Your task to perform on an android device: What's the weather? Image 0: 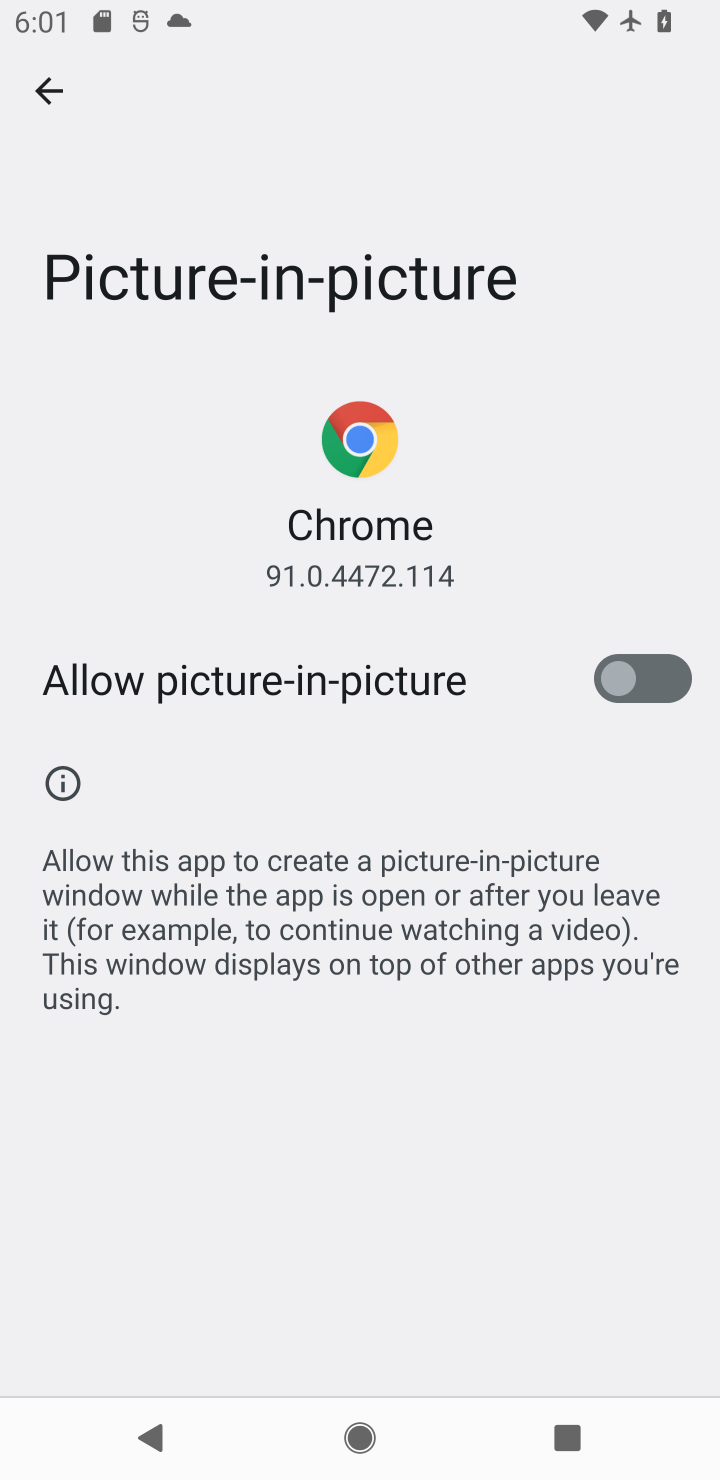
Step 0: press home button
Your task to perform on an android device: What's the weather? Image 1: 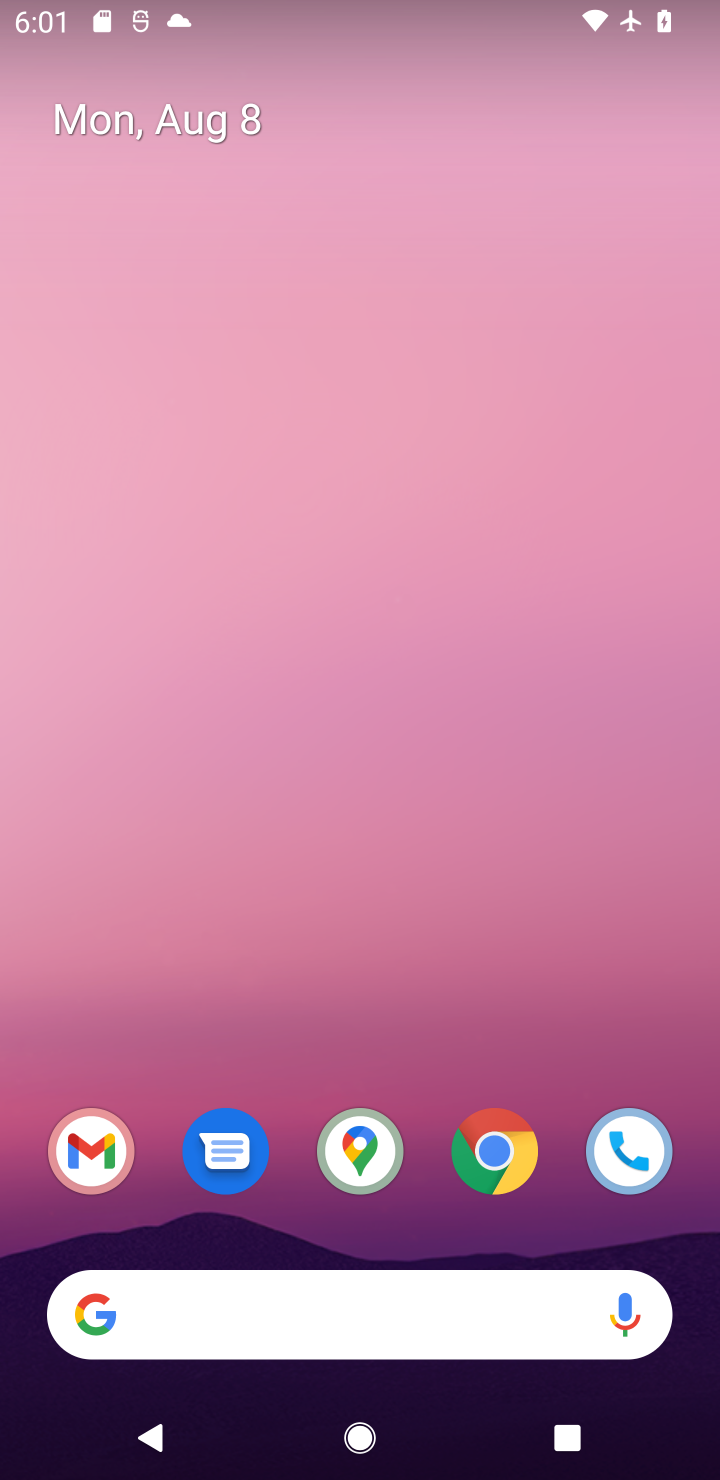
Step 1: drag from (407, 1029) to (440, 266)
Your task to perform on an android device: What's the weather? Image 2: 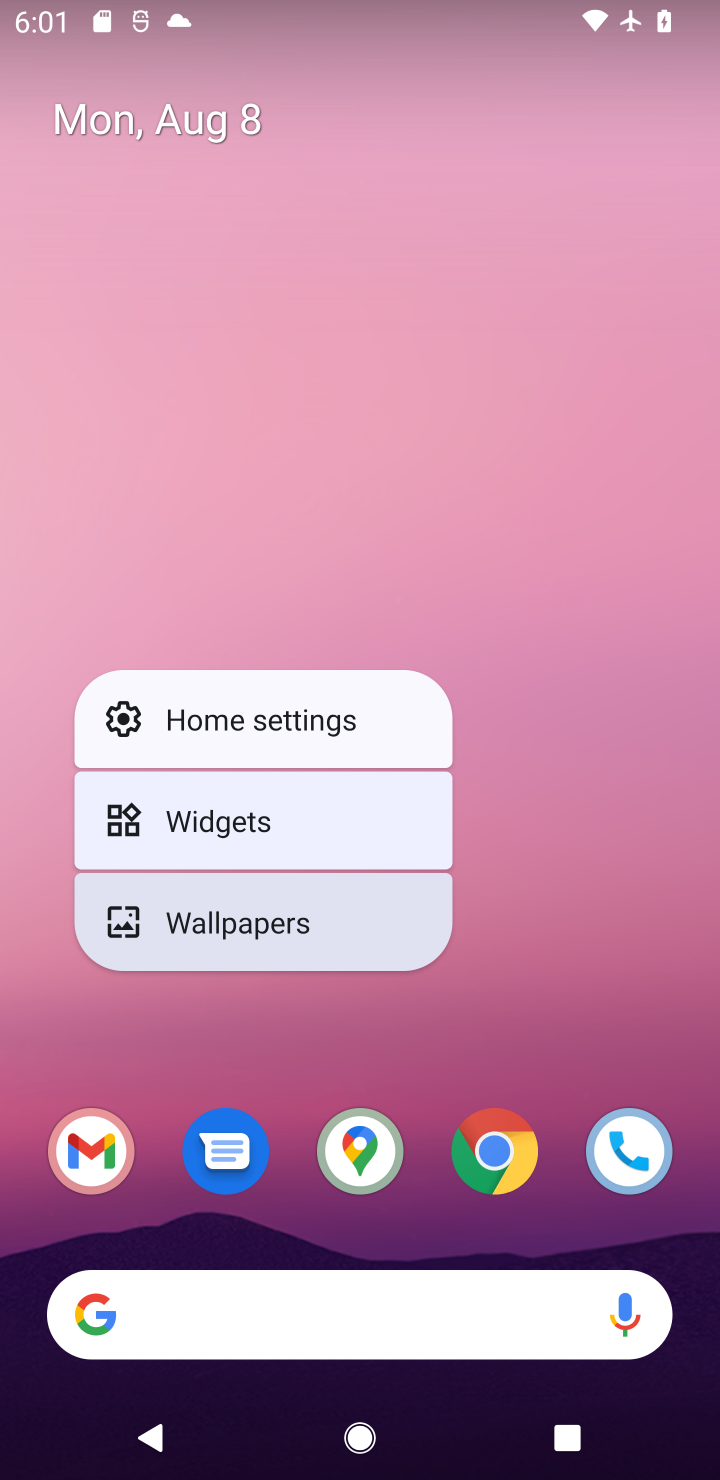
Step 2: click (527, 881)
Your task to perform on an android device: What's the weather? Image 3: 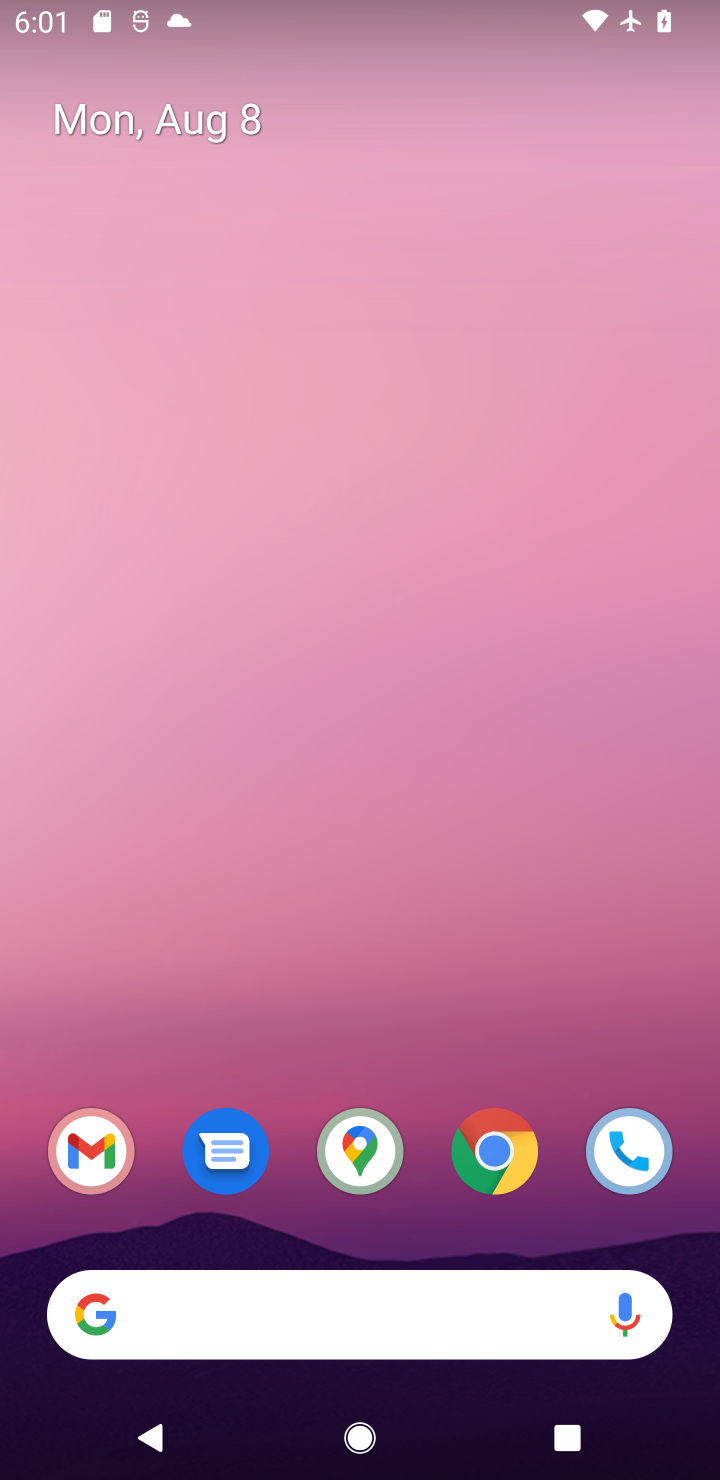
Step 3: drag from (396, 866) to (393, 304)
Your task to perform on an android device: What's the weather? Image 4: 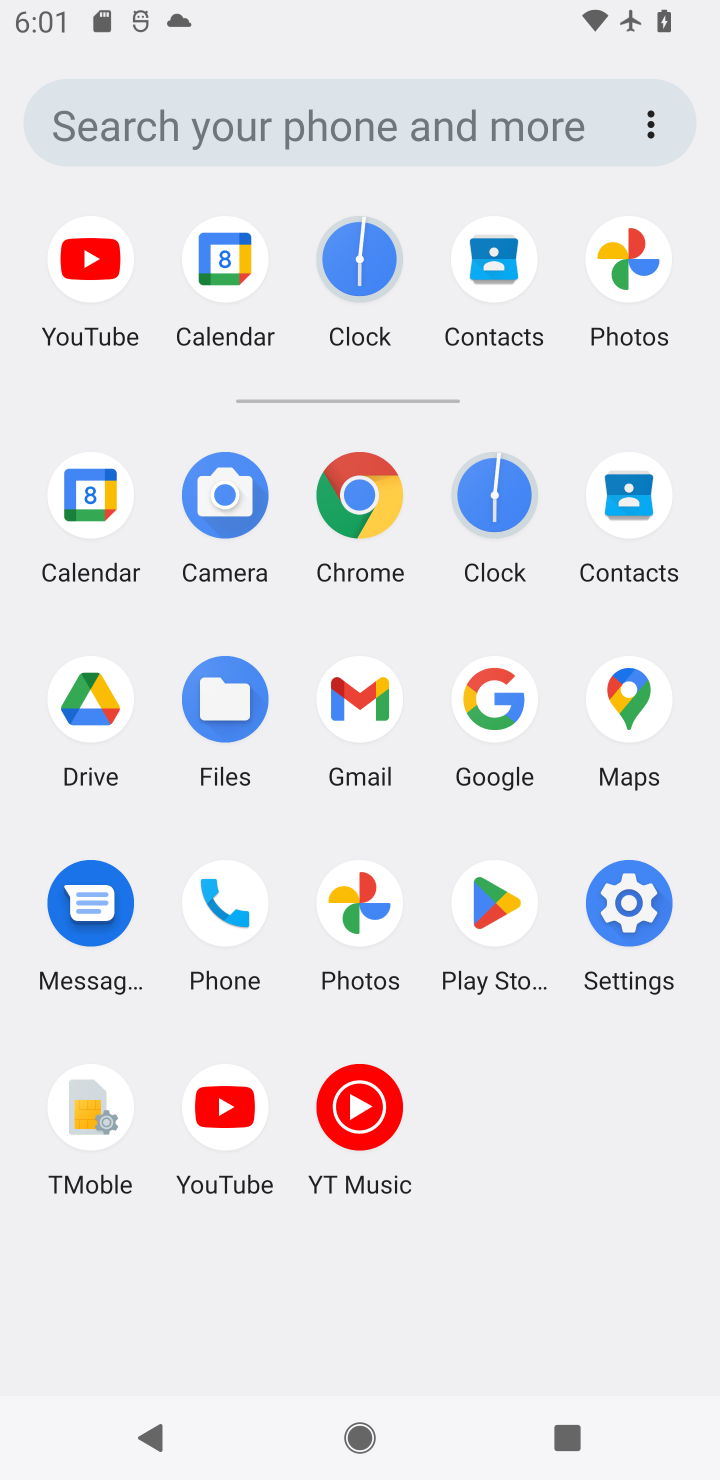
Step 4: click (460, 698)
Your task to perform on an android device: What's the weather? Image 5: 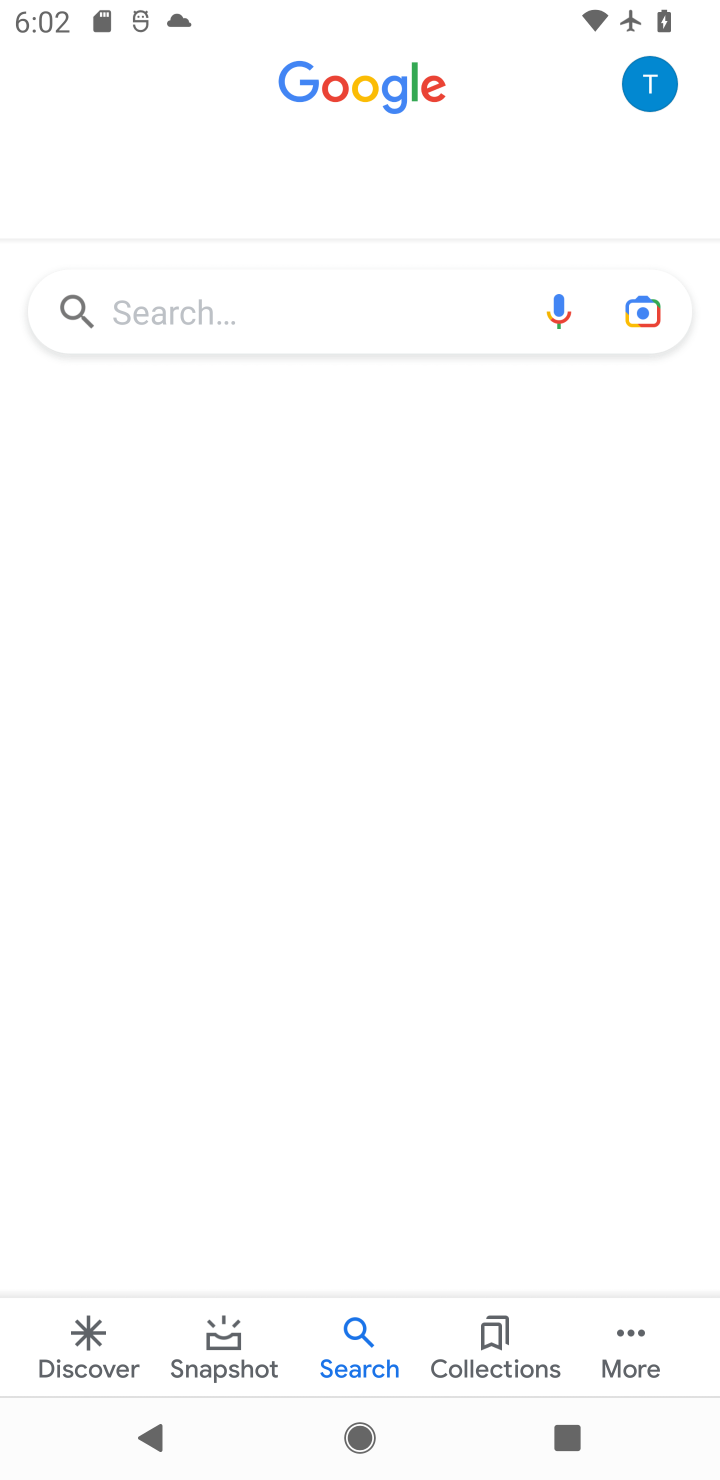
Step 5: click (217, 324)
Your task to perform on an android device: What's the weather? Image 6: 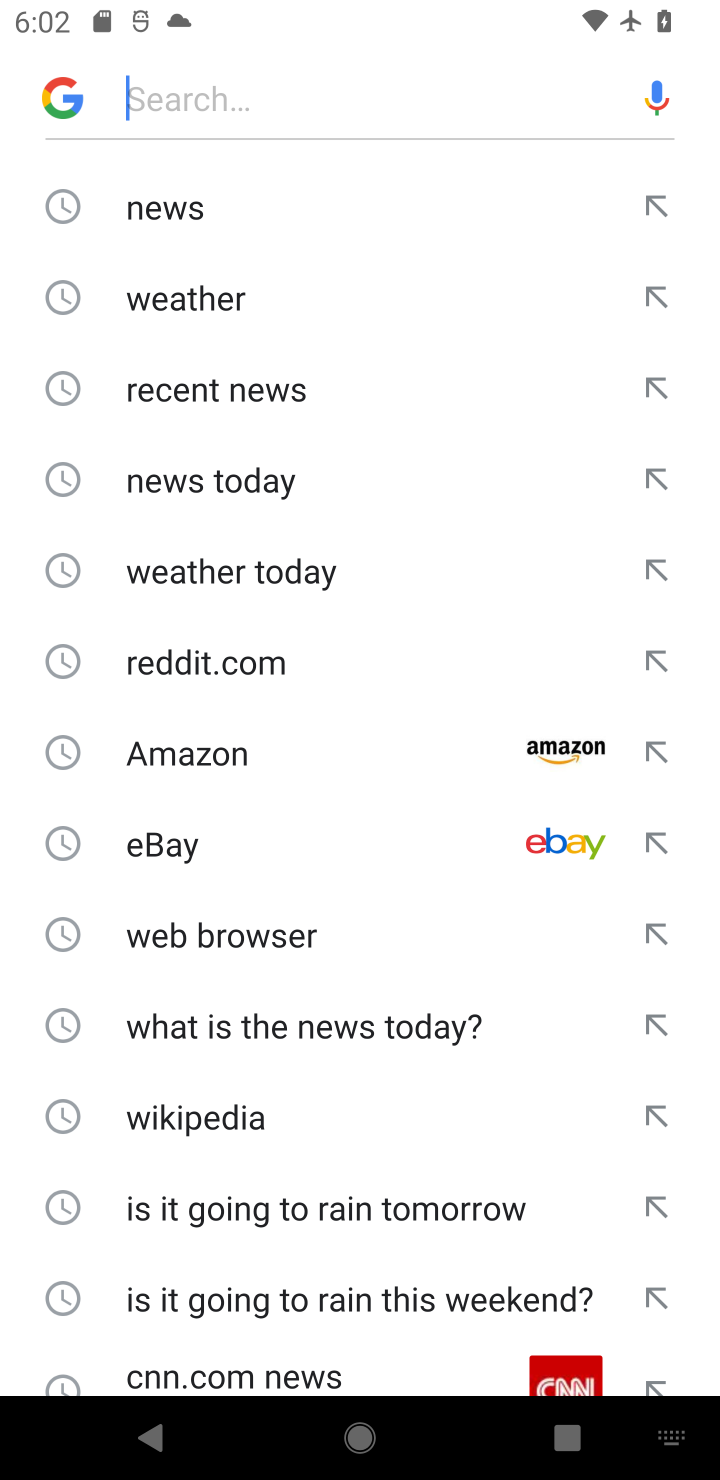
Step 6: click (158, 311)
Your task to perform on an android device: What's the weather? Image 7: 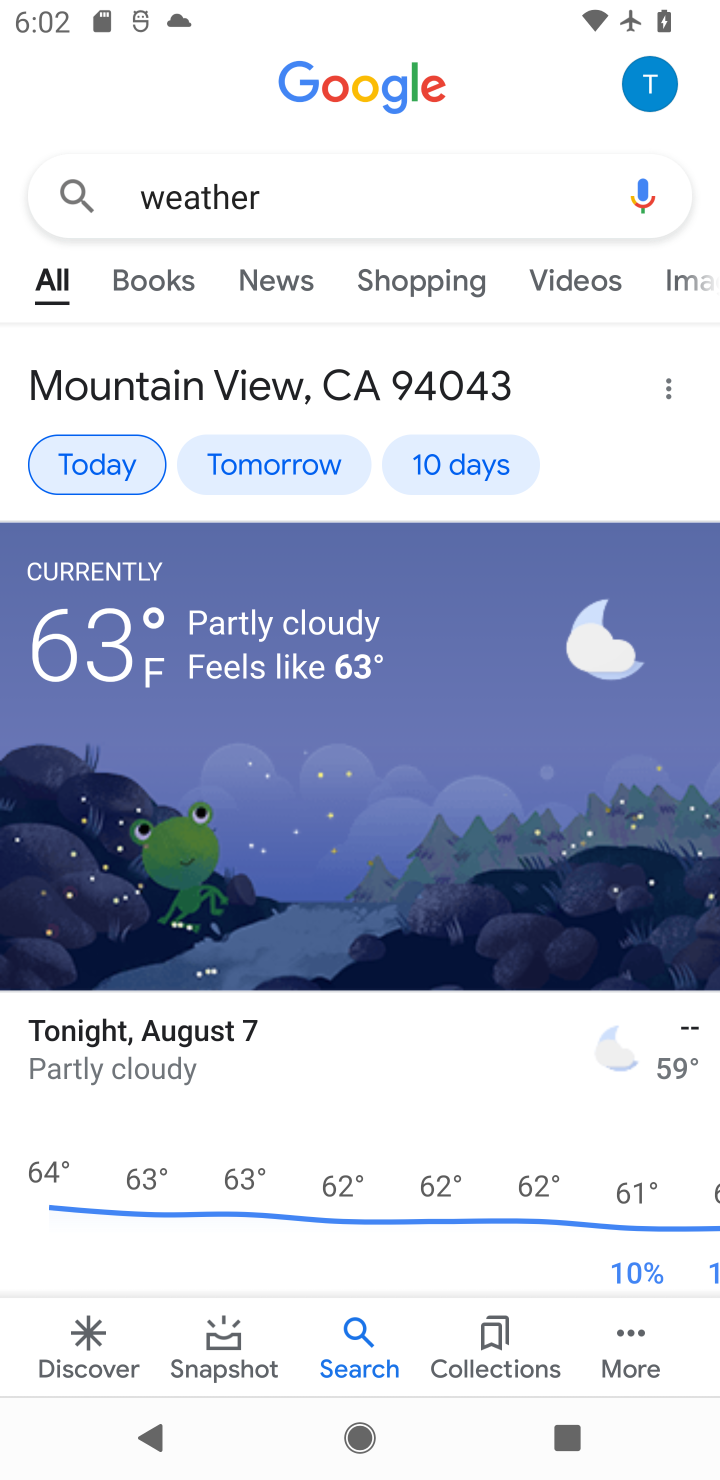
Step 7: task complete